Your task to perform on an android device: clear all cookies in the chrome app Image 0: 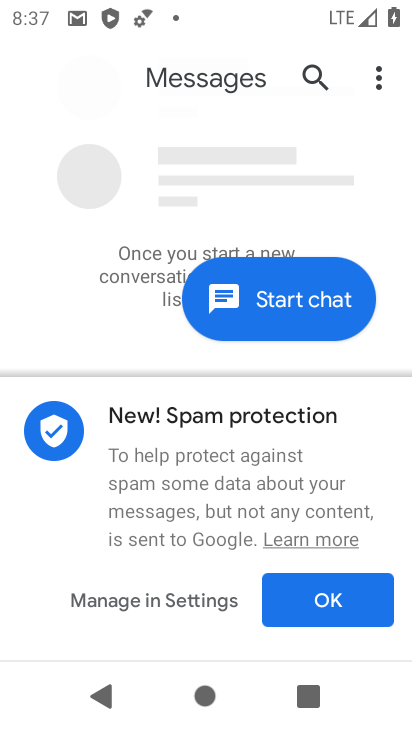
Step 0: press back button
Your task to perform on an android device: clear all cookies in the chrome app Image 1: 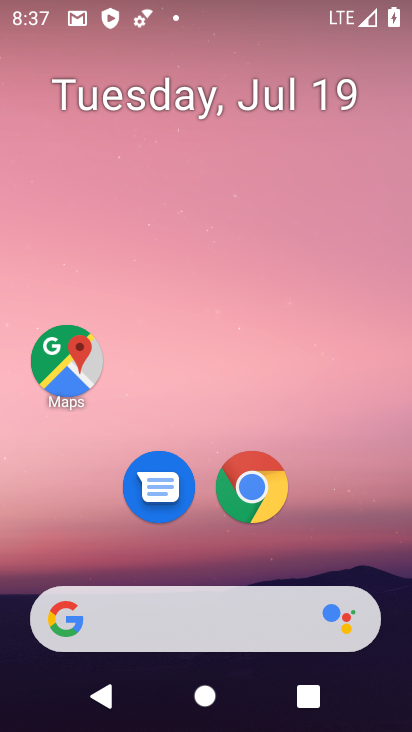
Step 1: click (249, 479)
Your task to perform on an android device: clear all cookies in the chrome app Image 2: 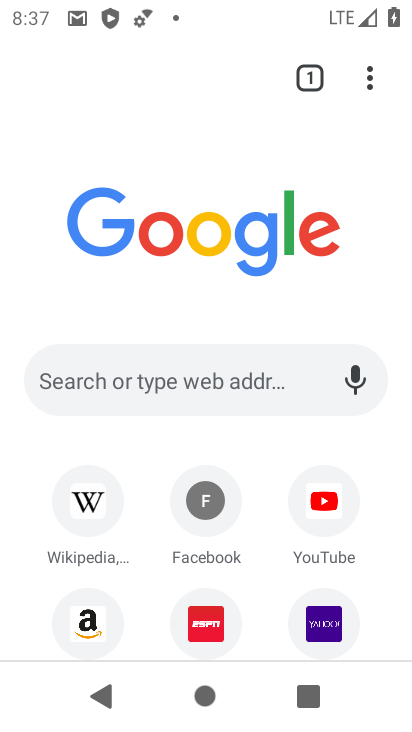
Step 2: drag from (372, 74) to (151, 453)
Your task to perform on an android device: clear all cookies in the chrome app Image 3: 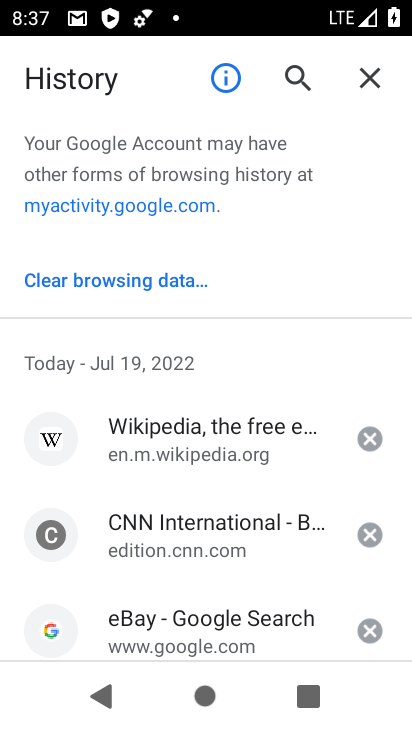
Step 3: click (130, 274)
Your task to perform on an android device: clear all cookies in the chrome app Image 4: 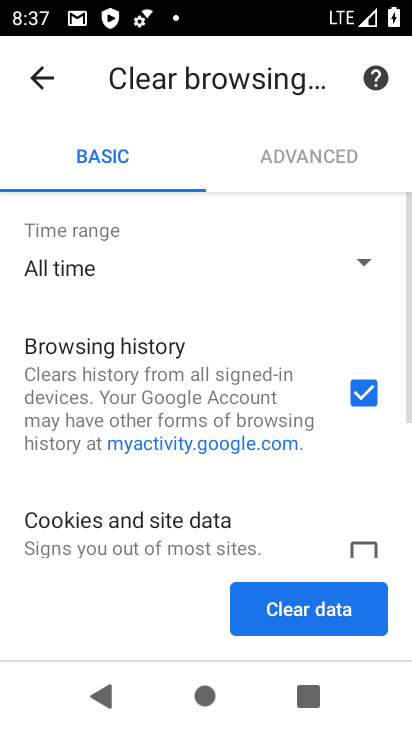
Step 4: drag from (168, 524) to (214, 358)
Your task to perform on an android device: clear all cookies in the chrome app Image 5: 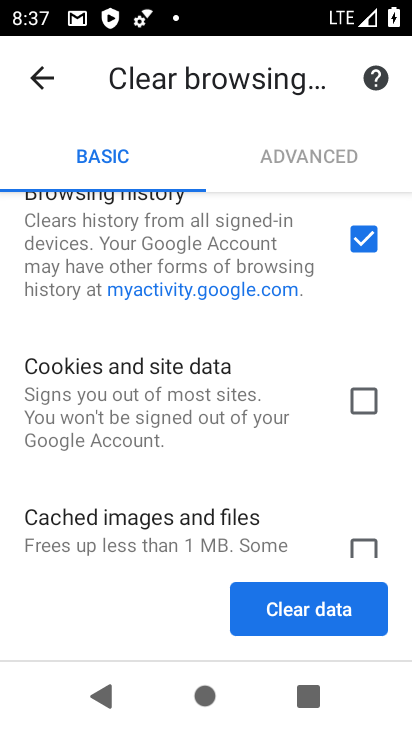
Step 5: click (362, 404)
Your task to perform on an android device: clear all cookies in the chrome app Image 6: 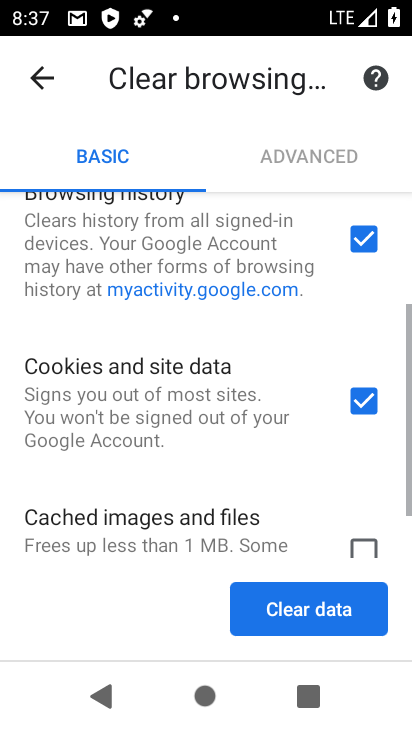
Step 6: click (368, 248)
Your task to perform on an android device: clear all cookies in the chrome app Image 7: 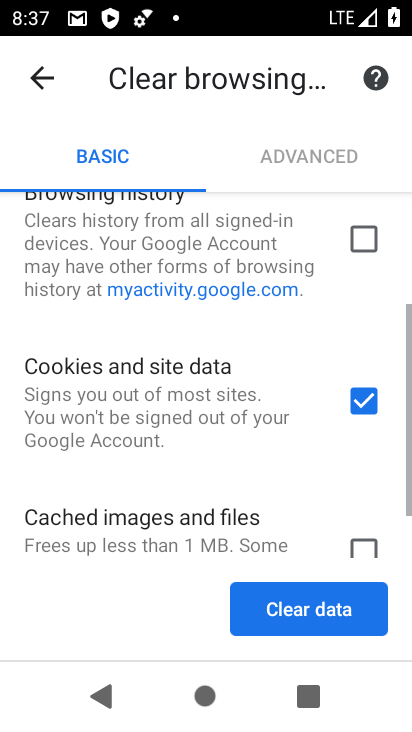
Step 7: click (284, 609)
Your task to perform on an android device: clear all cookies in the chrome app Image 8: 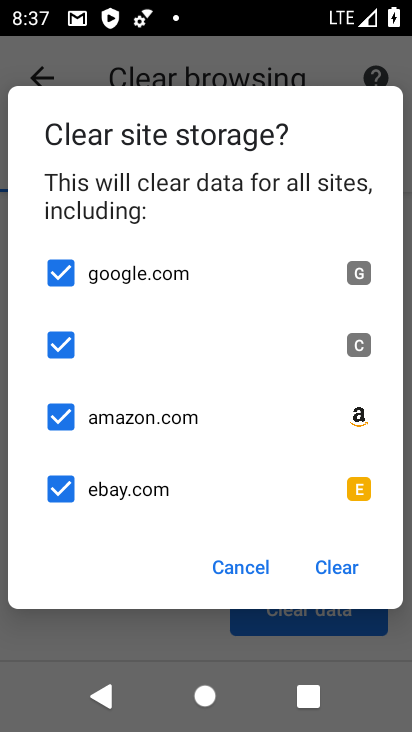
Step 8: click (330, 572)
Your task to perform on an android device: clear all cookies in the chrome app Image 9: 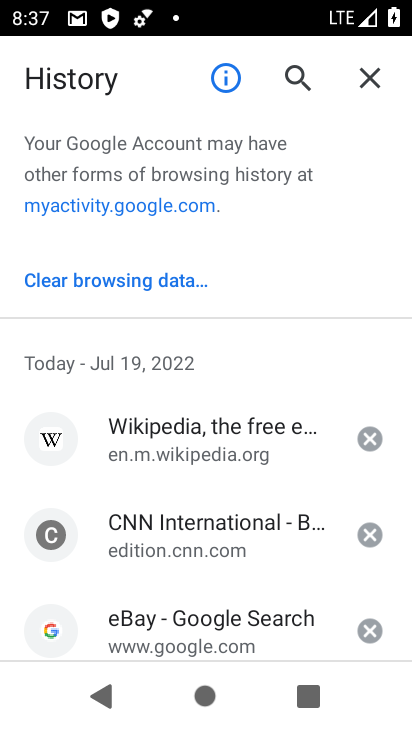
Step 9: task complete